Your task to perform on an android device: Open Google Maps Image 0: 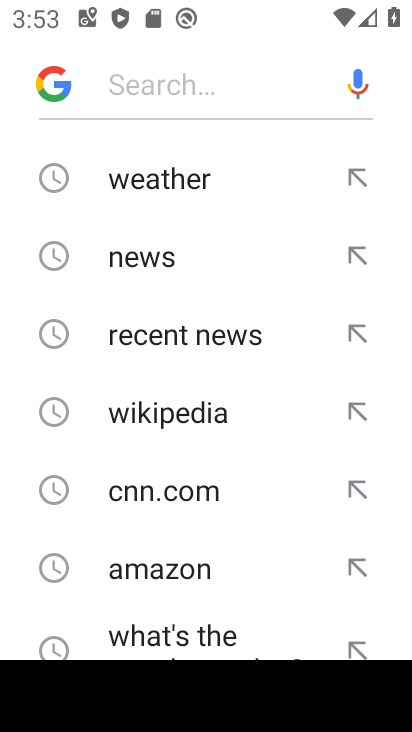
Step 0: press home button
Your task to perform on an android device: Open Google Maps Image 1: 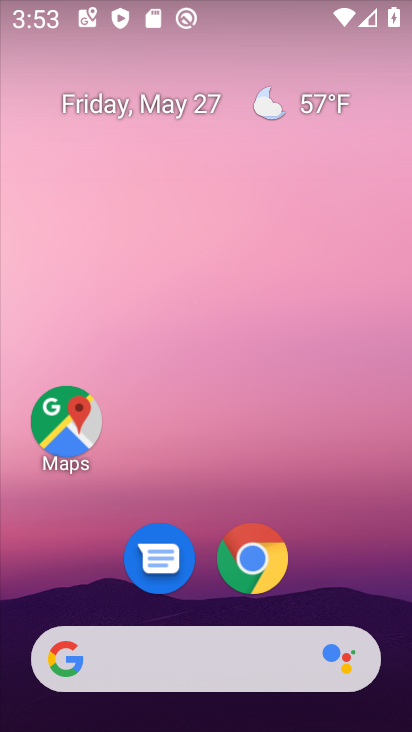
Step 1: drag from (332, 598) to (231, 118)
Your task to perform on an android device: Open Google Maps Image 2: 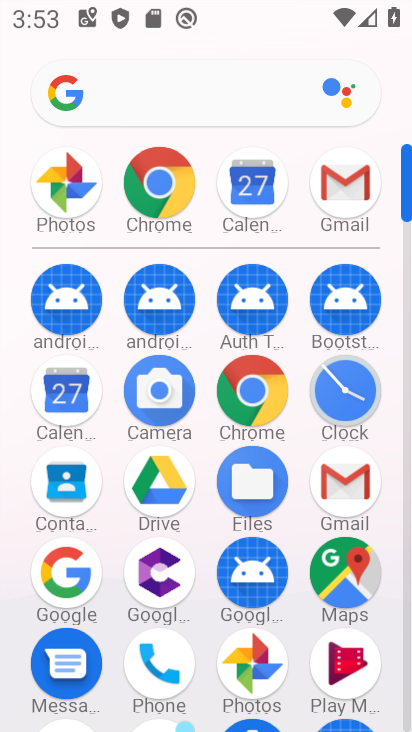
Step 2: click (339, 602)
Your task to perform on an android device: Open Google Maps Image 3: 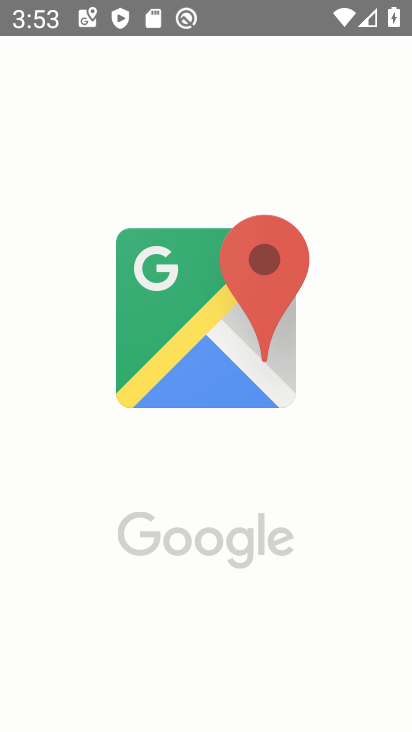
Step 3: task complete